Your task to perform on an android device: Turn off the flashlight Image 0: 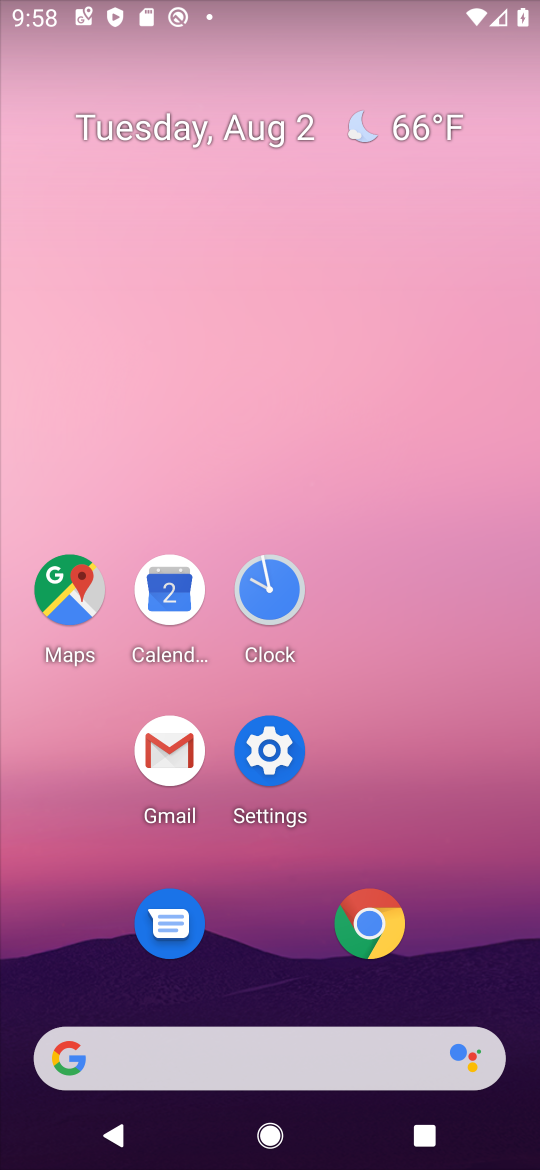
Step 0: drag from (507, 1094) to (416, 33)
Your task to perform on an android device: Turn off the flashlight Image 1: 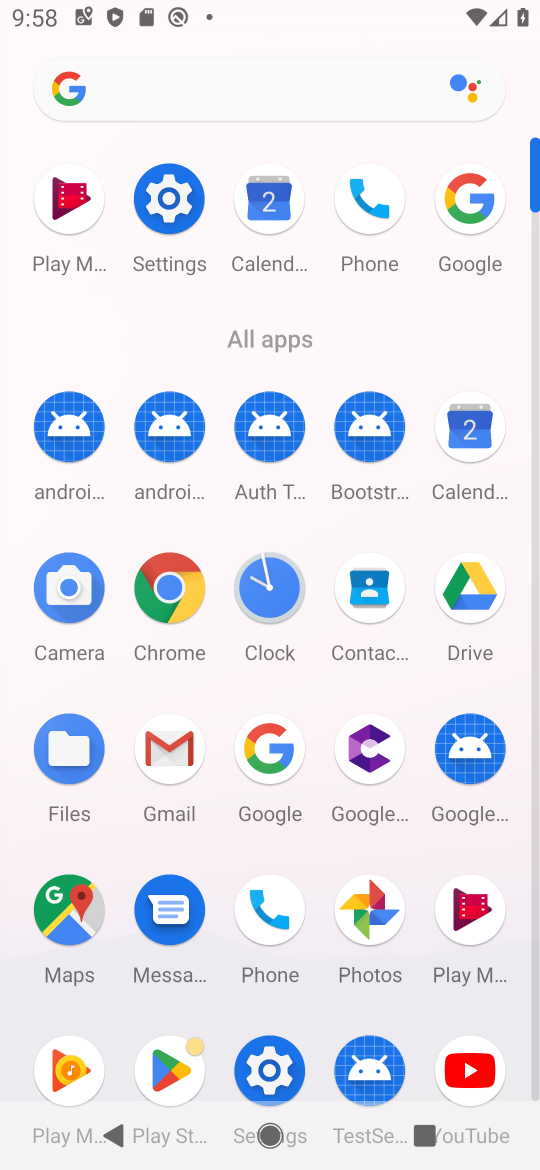
Step 1: click (172, 193)
Your task to perform on an android device: Turn off the flashlight Image 2: 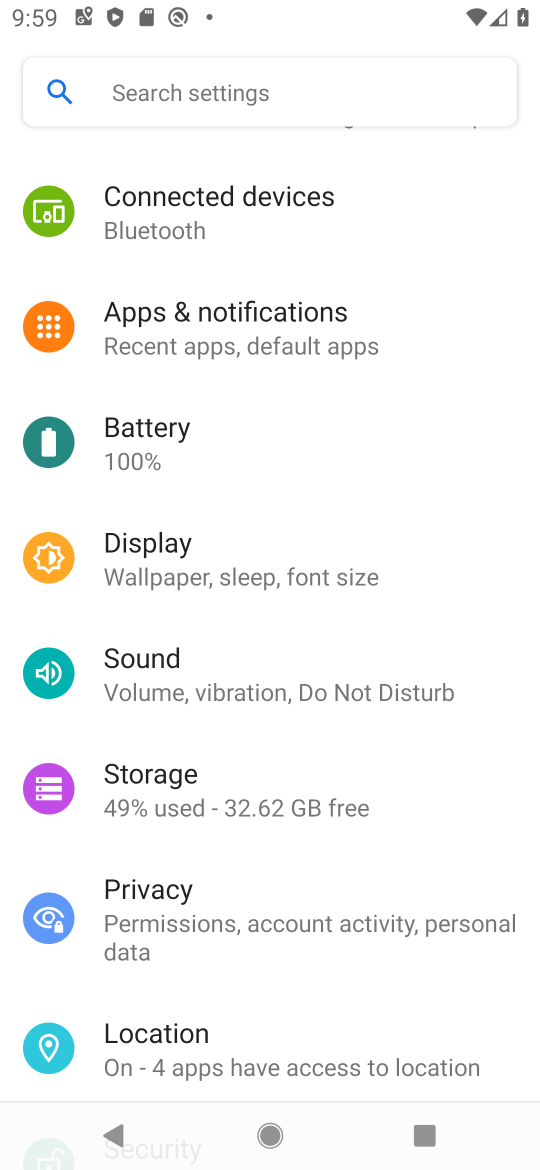
Step 2: click (142, 438)
Your task to perform on an android device: Turn off the flashlight Image 3: 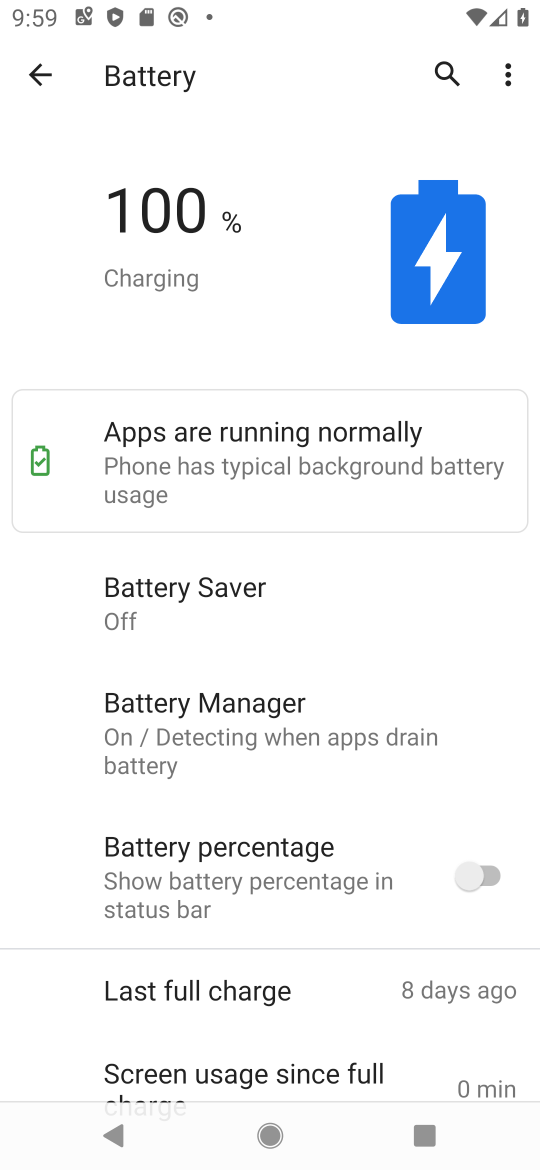
Step 3: click (44, 80)
Your task to perform on an android device: Turn off the flashlight Image 4: 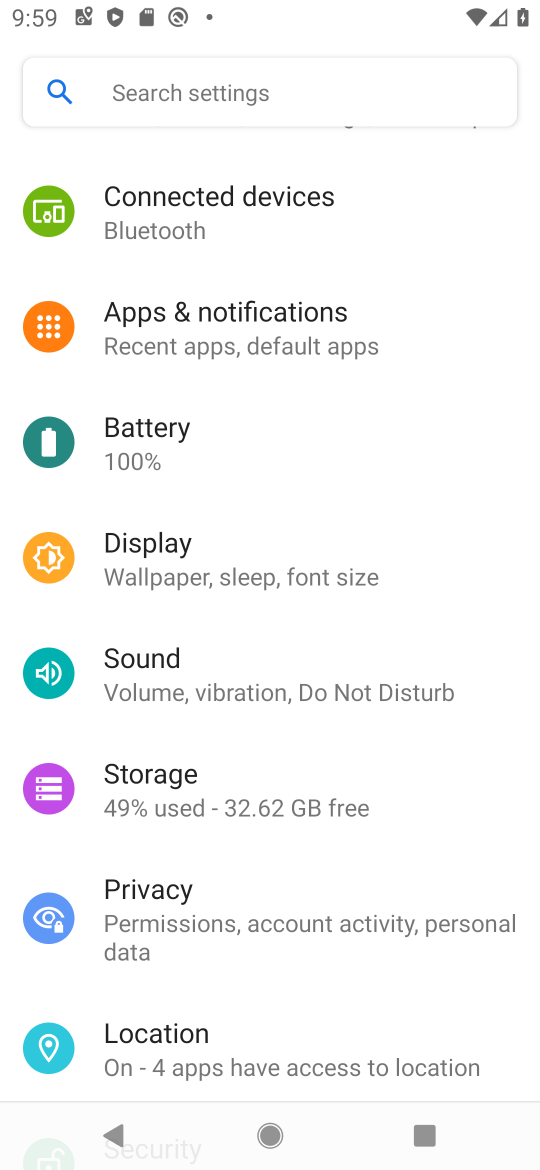
Step 4: click (139, 555)
Your task to perform on an android device: Turn off the flashlight Image 5: 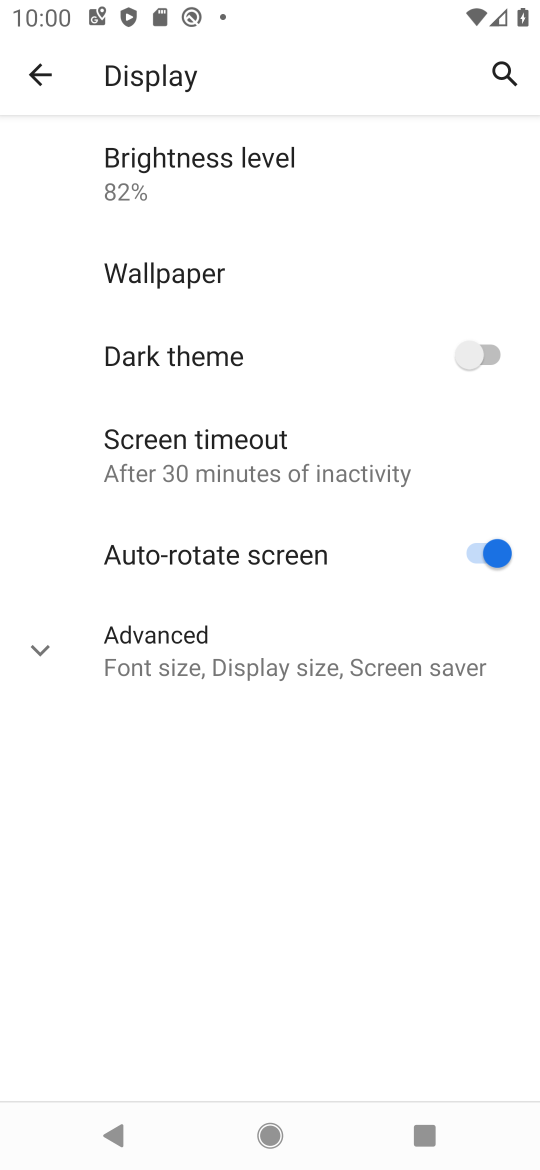
Step 5: task complete